Your task to perform on an android device: See recent photos Image 0: 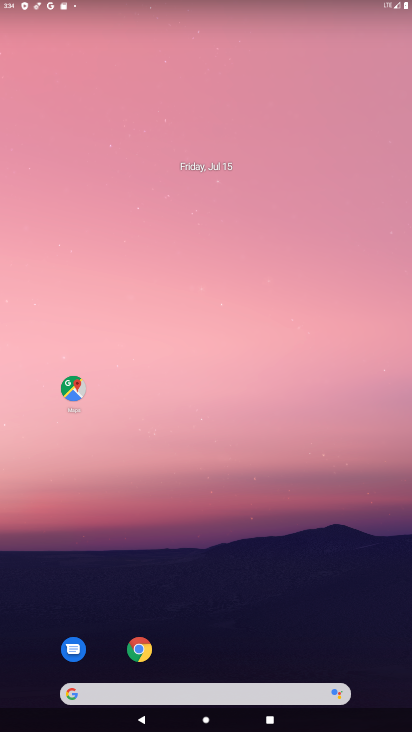
Step 0: drag from (237, 642) to (183, 27)
Your task to perform on an android device: See recent photos Image 1: 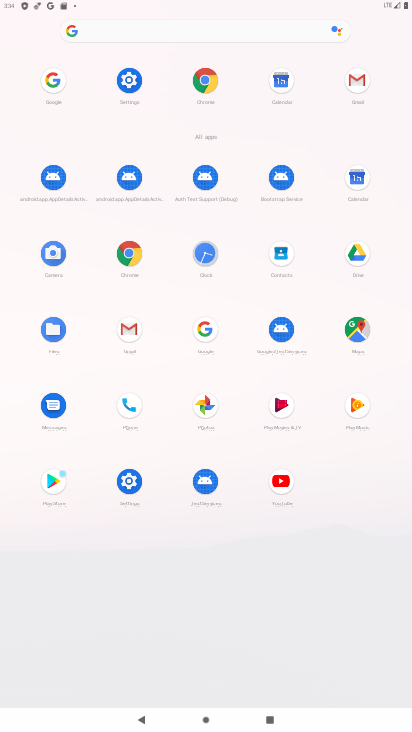
Step 1: click (210, 400)
Your task to perform on an android device: See recent photos Image 2: 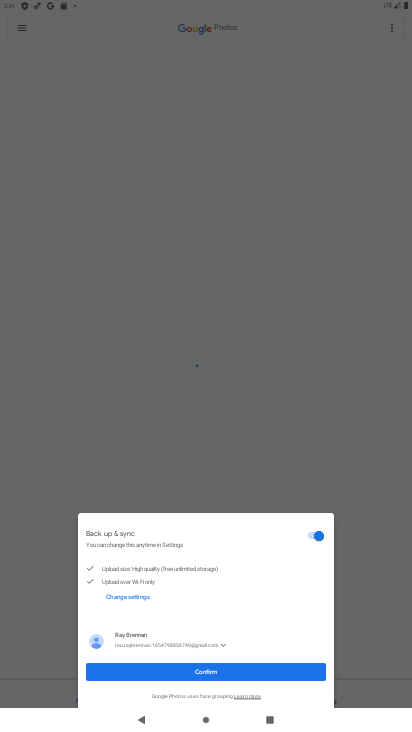
Step 2: click (196, 670)
Your task to perform on an android device: See recent photos Image 3: 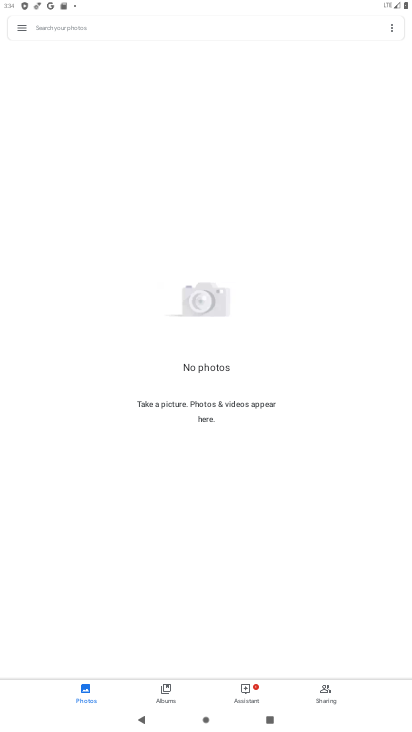
Step 3: task complete